Your task to perform on an android device: Check out the best rated 4k TV on Best Buy. Image 0: 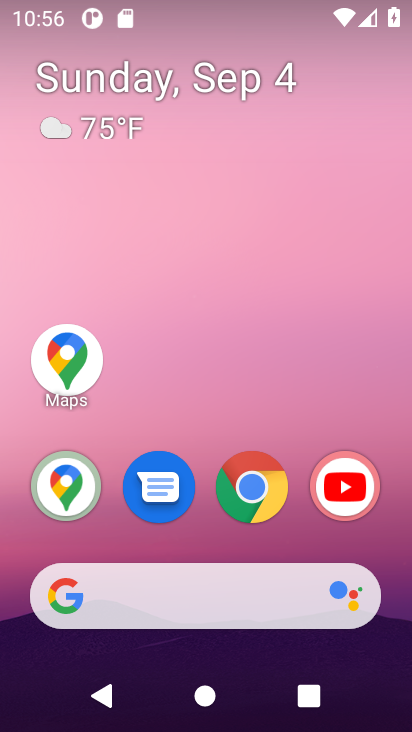
Step 0: click (234, 491)
Your task to perform on an android device: Check out the best rated 4k TV on Best Buy. Image 1: 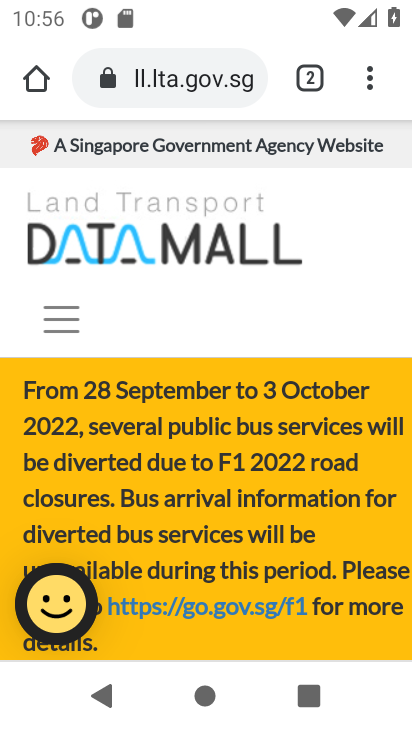
Step 1: task complete